Your task to perform on an android device: open wifi settings Image 0: 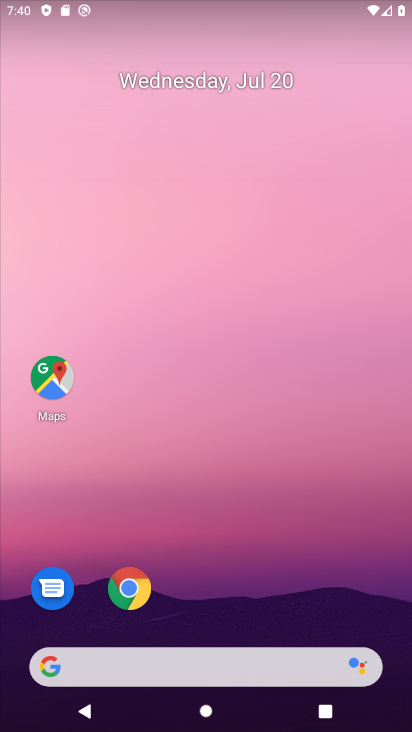
Step 0: drag from (296, 628) to (286, 175)
Your task to perform on an android device: open wifi settings Image 1: 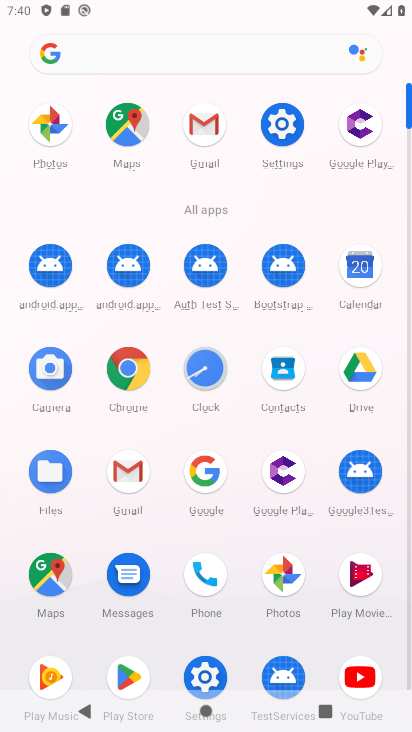
Step 1: click (284, 140)
Your task to perform on an android device: open wifi settings Image 2: 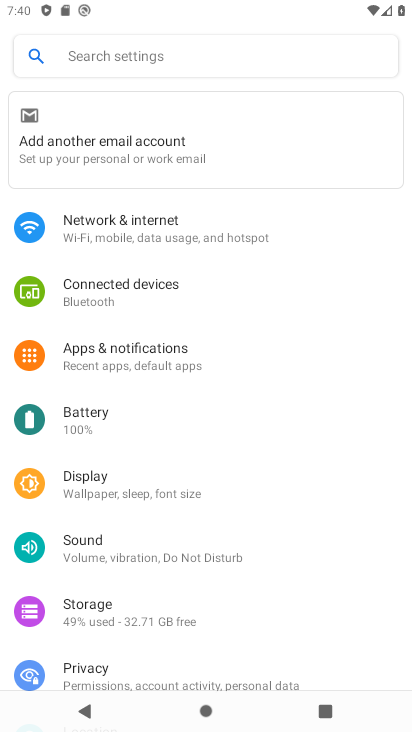
Step 2: click (227, 216)
Your task to perform on an android device: open wifi settings Image 3: 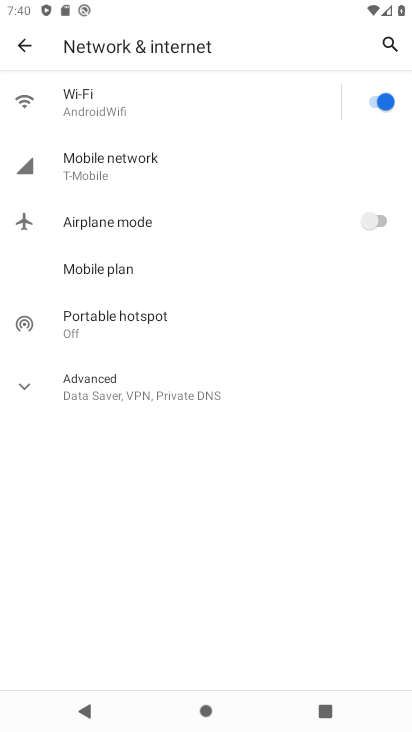
Step 3: click (160, 98)
Your task to perform on an android device: open wifi settings Image 4: 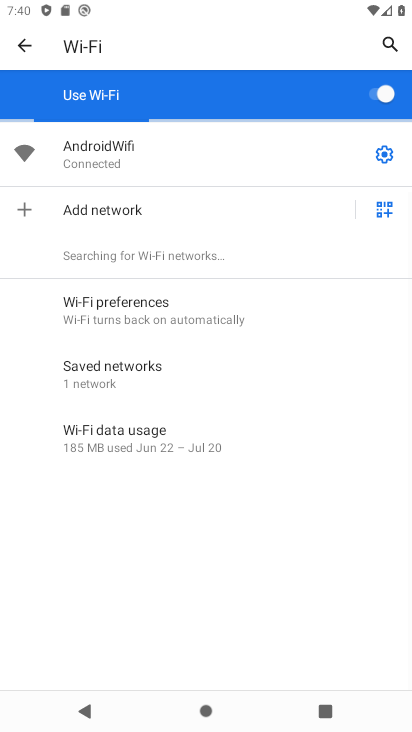
Step 4: task complete